Your task to perform on an android device: Open settings on Google Maps Image 0: 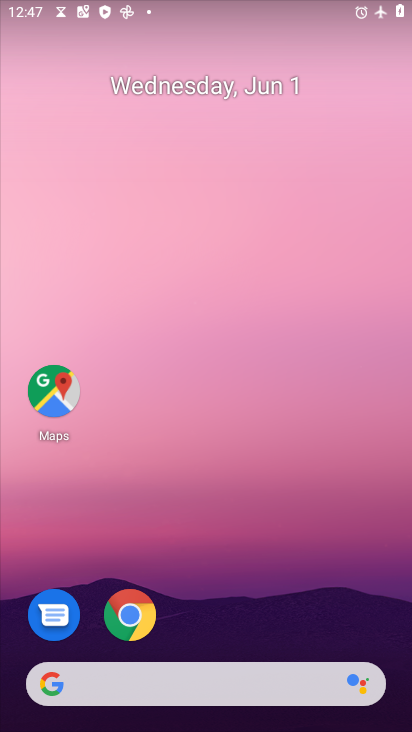
Step 0: drag from (294, 580) to (328, 47)
Your task to perform on an android device: Open settings on Google Maps Image 1: 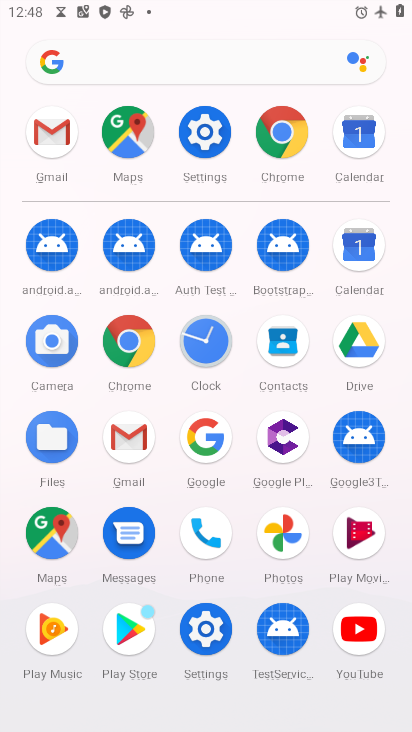
Step 1: click (54, 546)
Your task to perform on an android device: Open settings on Google Maps Image 2: 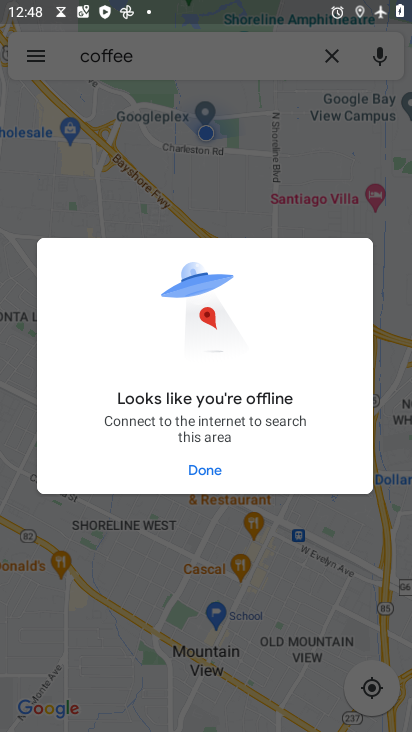
Step 2: task complete